Your task to perform on an android device: See recent photos Image 0: 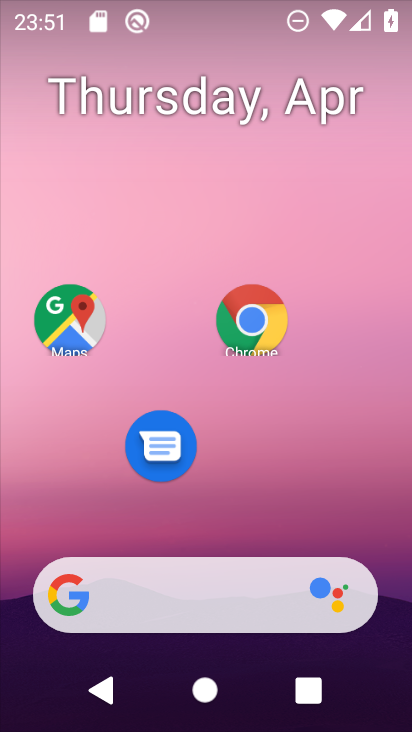
Step 0: drag from (187, 203) to (182, 158)
Your task to perform on an android device: See recent photos Image 1: 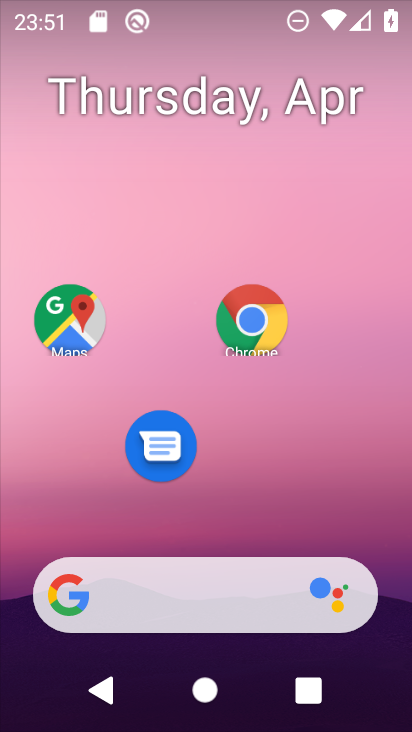
Step 1: drag from (214, 538) to (205, 128)
Your task to perform on an android device: See recent photos Image 2: 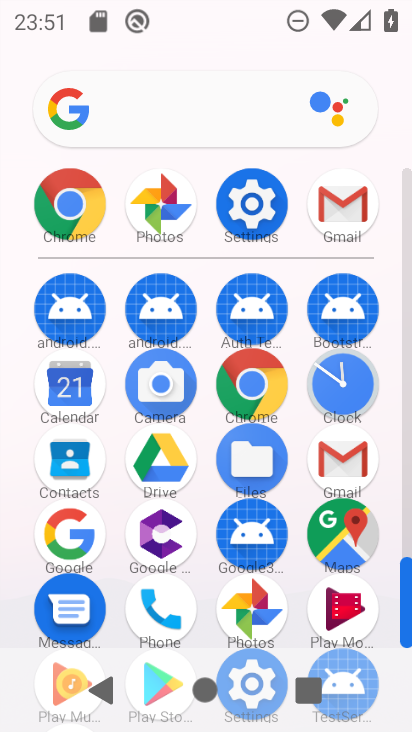
Step 2: drag from (199, 630) to (163, 273)
Your task to perform on an android device: See recent photos Image 3: 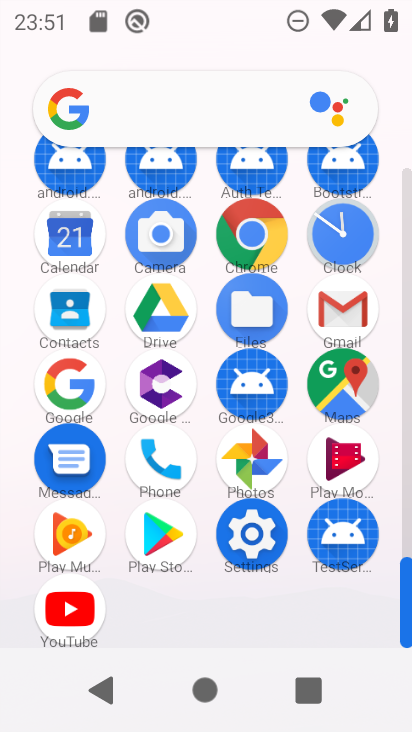
Step 3: click (256, 440)
Your task to perform on an android device: See recent photos Image 4: 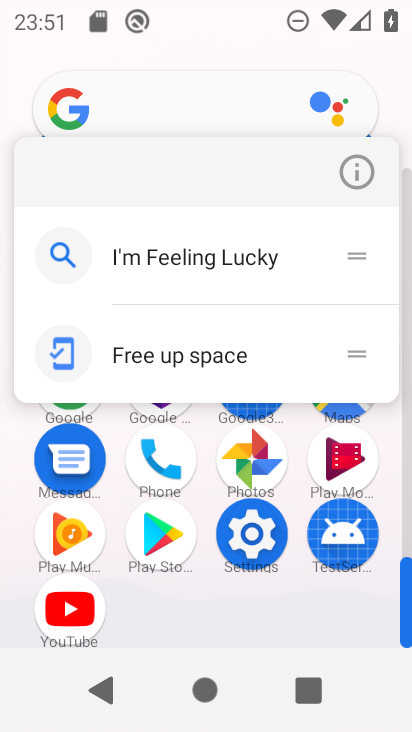
Step 4: click (350, 174)
Your task to perform on an android device: See recent photos Image 5: 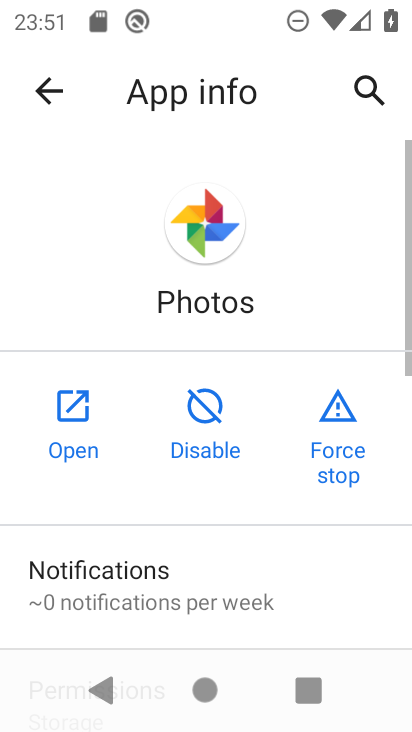
Step 5: click (69, 437)
Your task to perform on an android device: See recent photos Image 6: 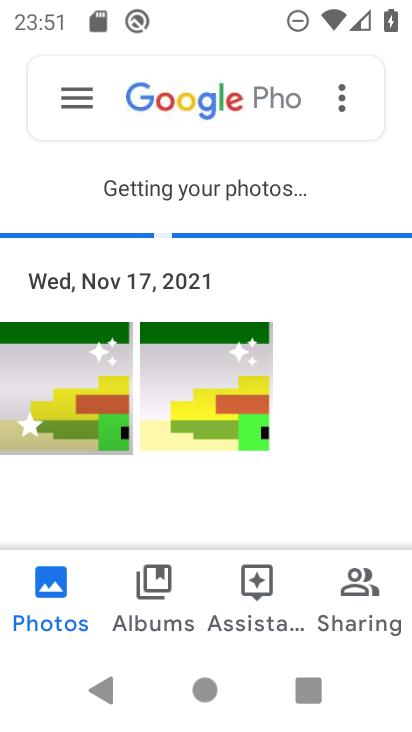
Step 6: click (119, 397)
Your task to perform on an android device: See recent photos Image 7: 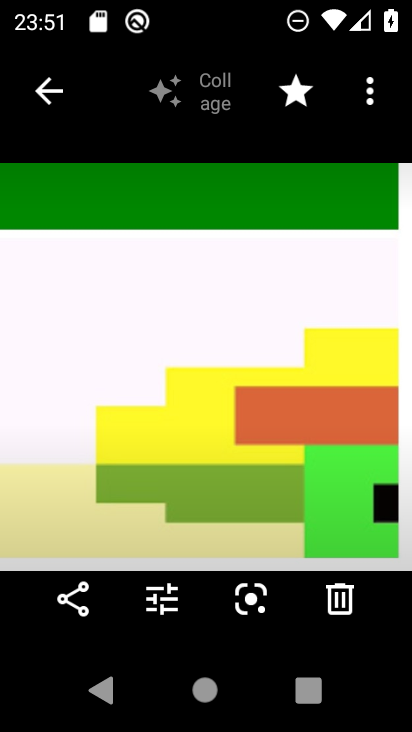
Step 7: task complete